Your task to perform on an android device: turn off wifi Image 0: 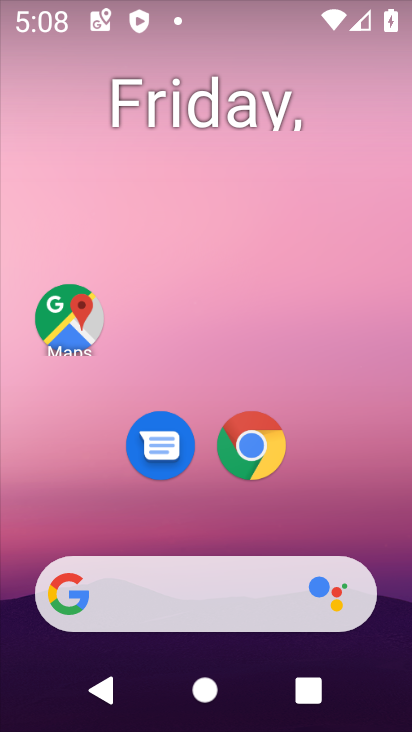
Step 0: drag from (319, 528) to (342, 129)
Your task to perform on an android device: turn off wifi Image 1: 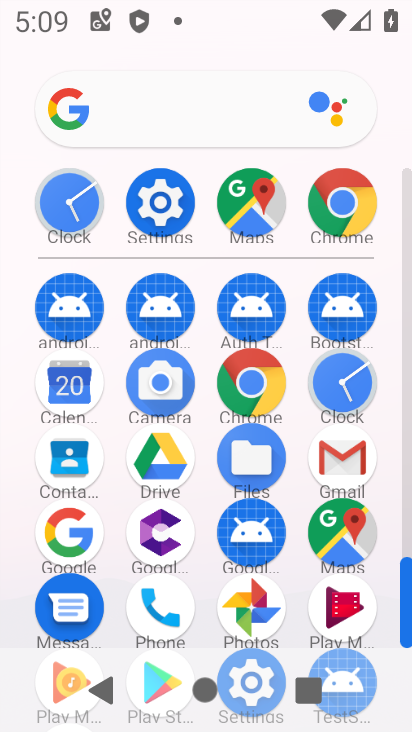
Step 1: click (173, 231)
Your task to perform on an android device: turn off wifi Image 2: 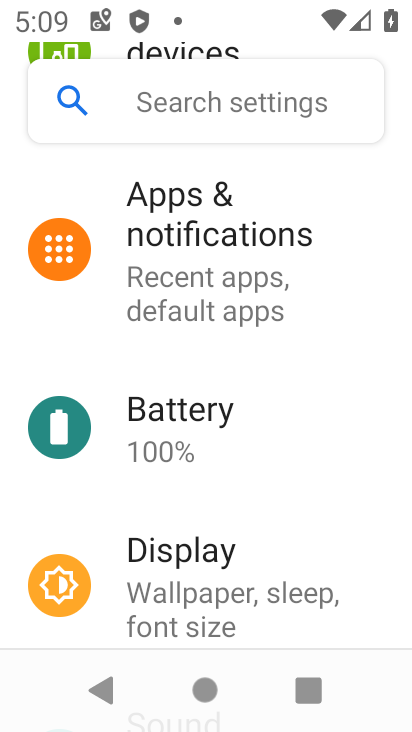
Step 2: drag from (173, 231) to (158, 609)
Your task to perform on an android device: turn off wifi Image 3: 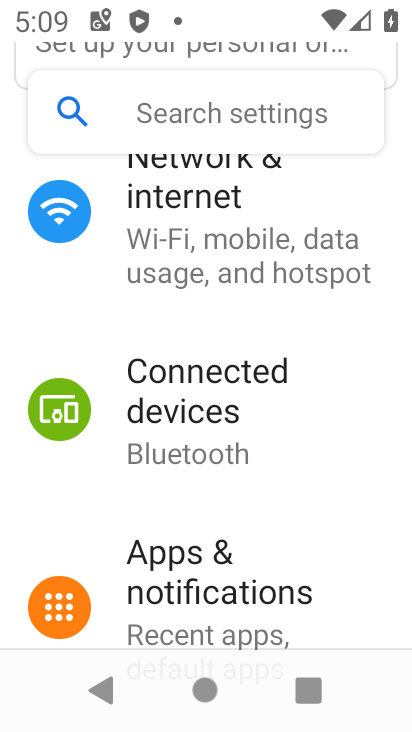
Step 3: click (253, 221)
Your task to perform on an android device: turn off wifi Image 4: 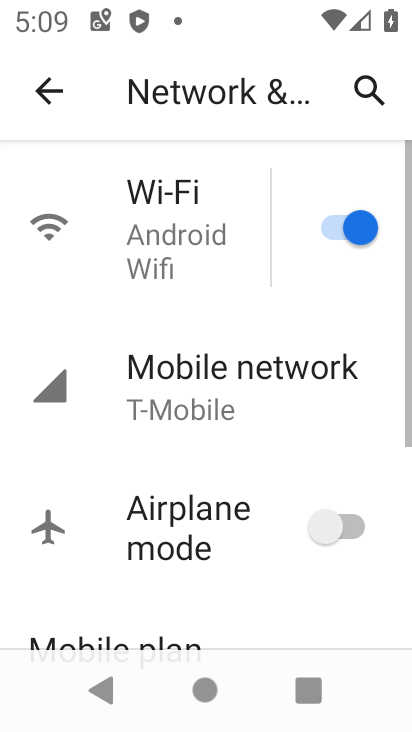
Step 4: click (318, 231)
Your task to perform on an android device: turn off wifi Image 5: 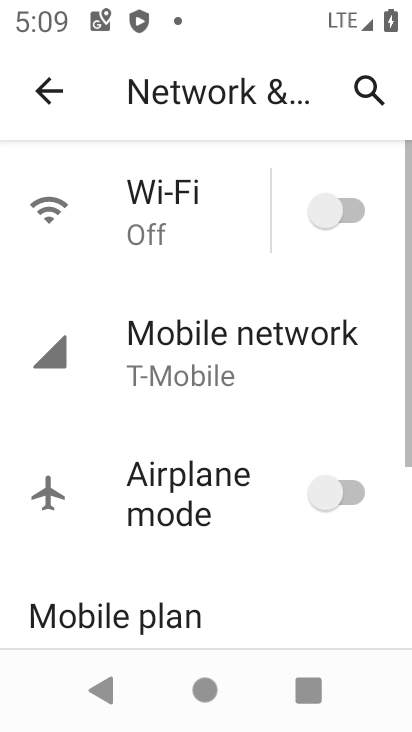
Step 5: task complete